Your task to perform on an android device: Open Google Maps and go to "Timeline" Image 0: 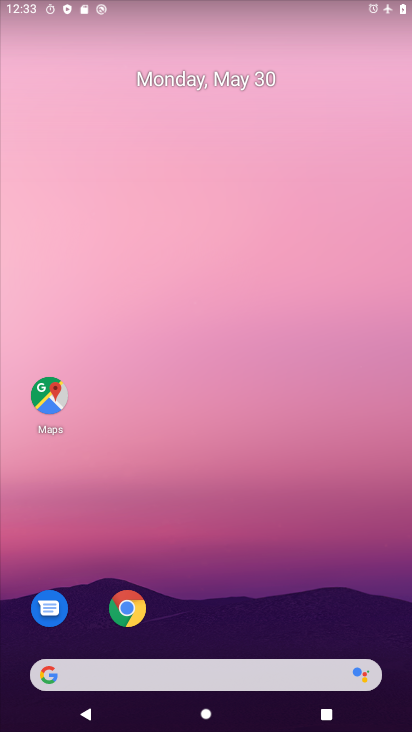
Step 0: click (33, 386)
Your task to perform on an android device: Open Google Maps and go to "Timeline" Image 1: 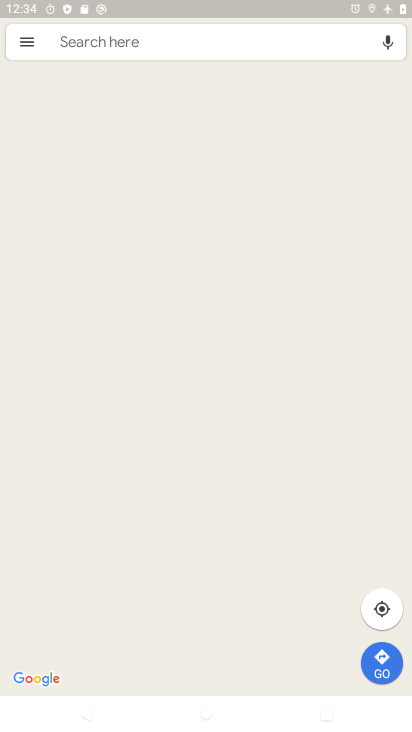
Step 1: click (10, 34)
Your task to perform on an android device: Open Google Maps and go to "Timeline" Image 2: 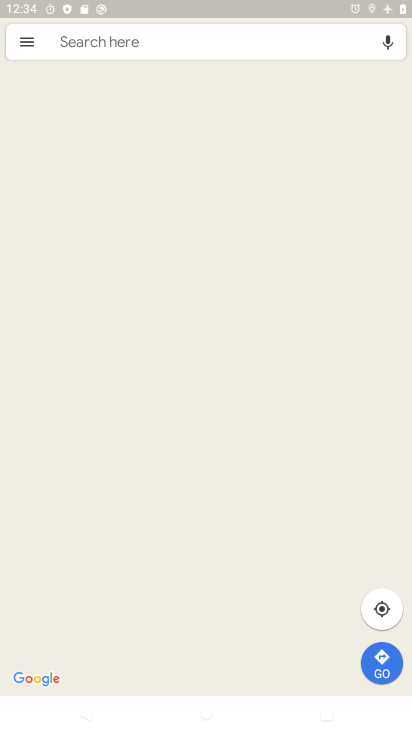
Step 2: click (22, 35)
Your task to perform on an android device: Open Google Maps and go to "Timeline" Image 3: 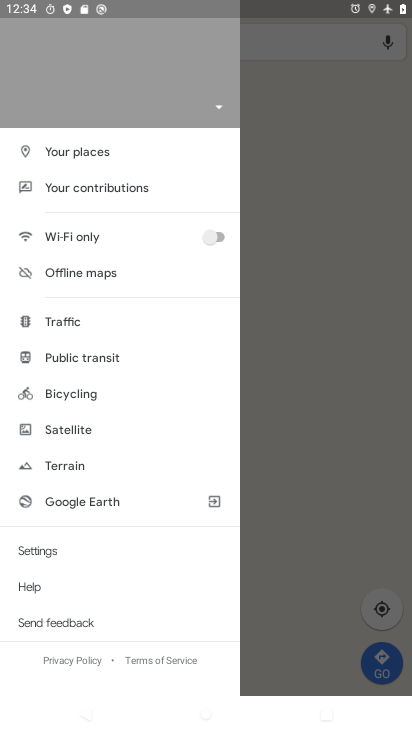
Step 3: task complete